Your task to perform on an android device: turn on notifications settings in the gmail app Image 0: 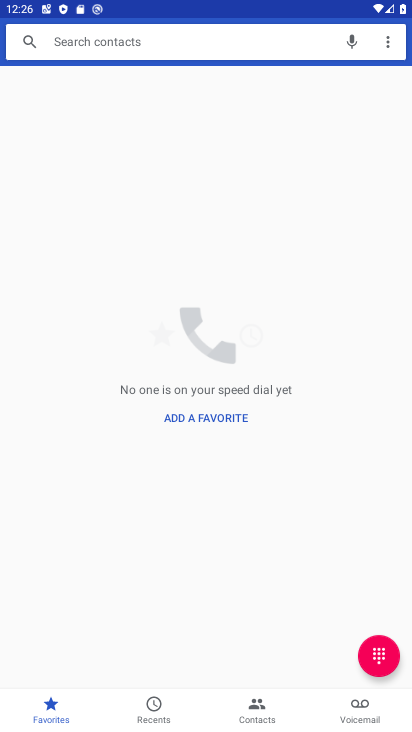
Step 0: press back button
Your task to perform on an android device: turn on notifications settings in the gmail app Image 1: 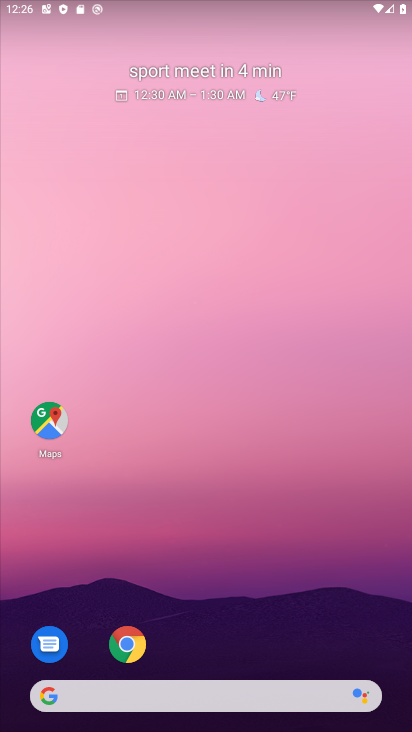
Step 1: drag from (224, 649) to (316, 143)
Your task to perform on an android device: turn on notifications settings in the gmail app Image 2: 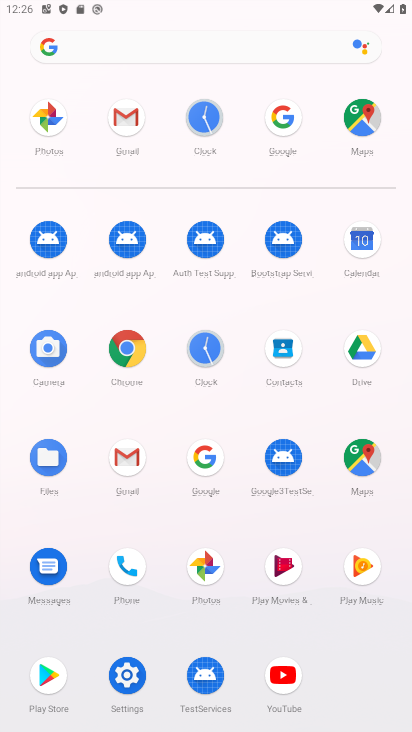
Step 2: click (134, 462)
Your task to perform on an android device: turn on notifications settings in the gmail app Image 3: 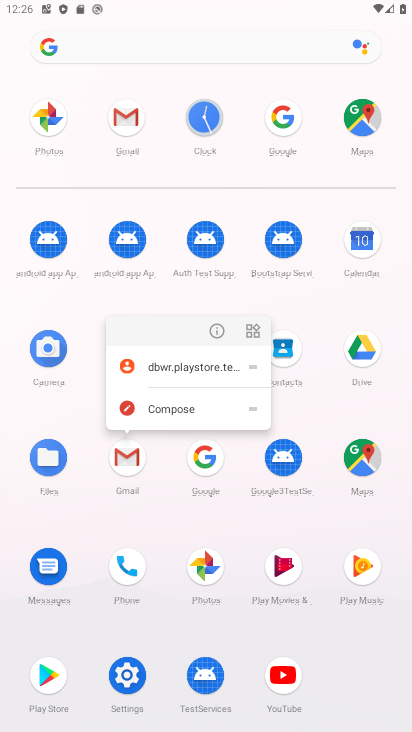
Step 3: click (216, 335)
Your task to perform on an android device: turn on notifications settings in the gmail app Image 4: 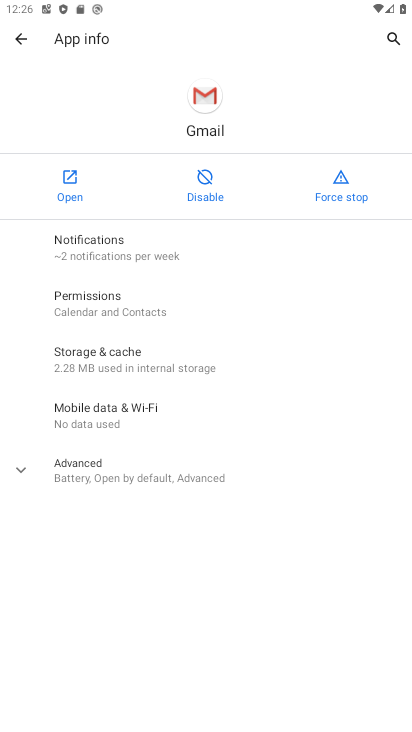
Step 4: click (87, 255)
Your task to perform on an android device: turn on notifications settings in the gmail app Image 5: 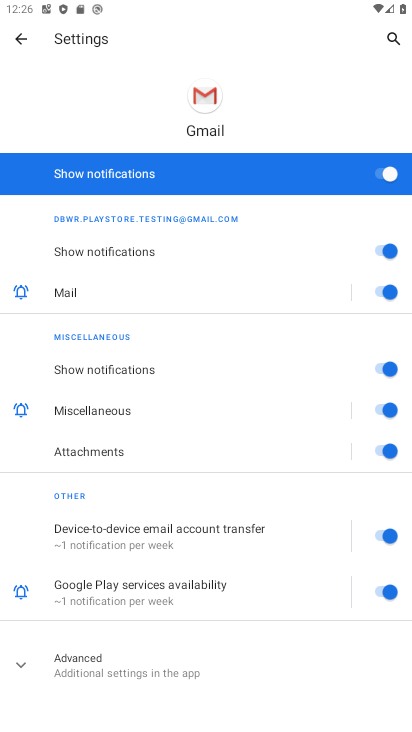
Step 5: task complete